Your task to perform on an android device: Do I have any events tomorrow? Image 0: 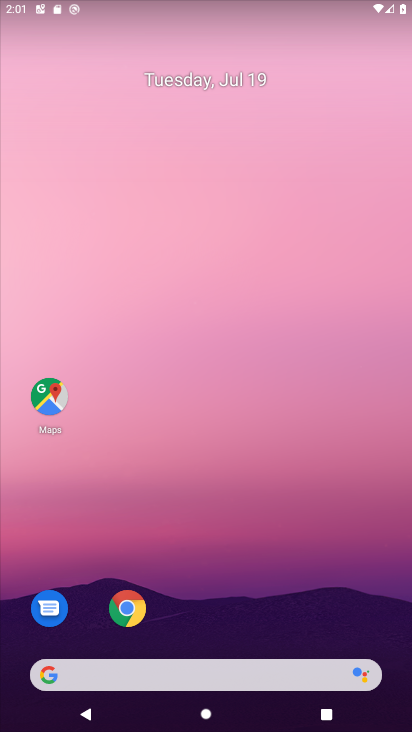
Step 0: drag from (263, 599) to (258, 69)
Your task to perform on an android device: Do I have any events tomorrow? Image 1: 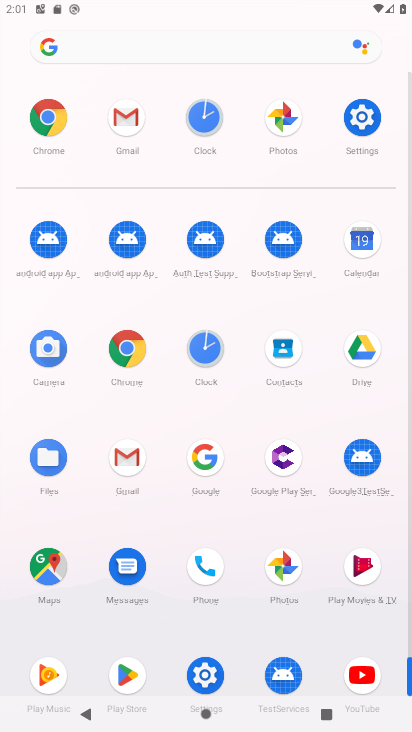
Step 1: click (372, 260)
Your task to perform on an android device: Do I have any events tomorrow? Image 2: 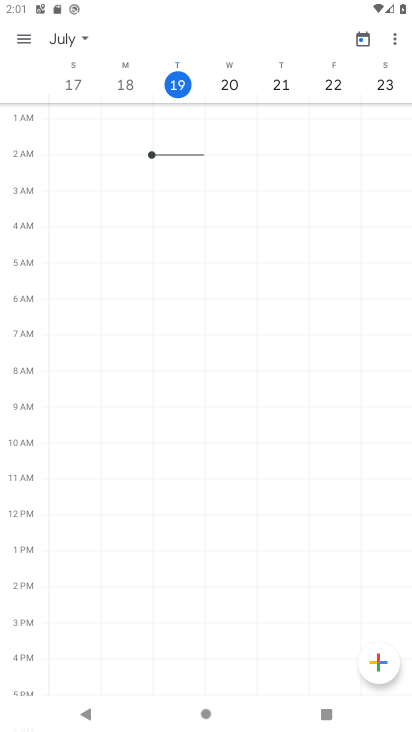
Step 2: click (236, 89)
Your task to perform on an android device: Do I have any events tomorrow? Image 3: 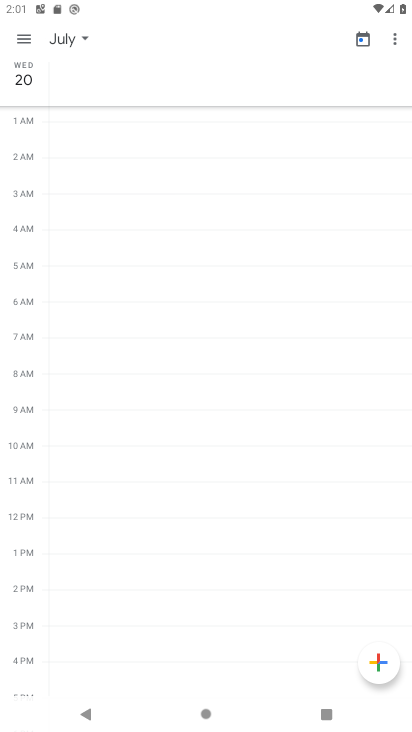
Step 3: task complete